Your task to perform on an android device: toggle wifi Image 0: 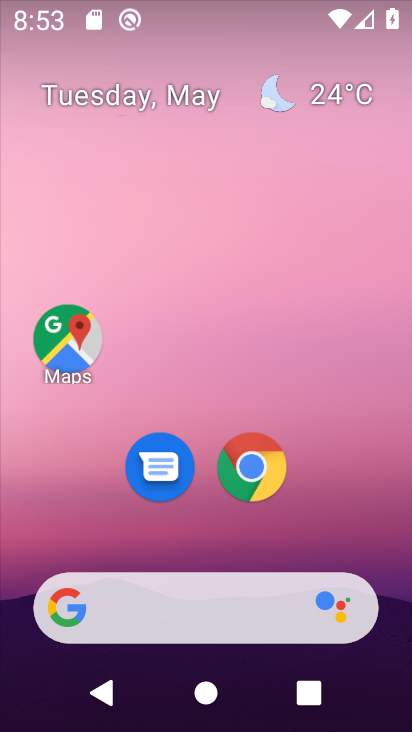
Step 0: drag from (392, 700) to (343, 223)
Your task to perform on an android device: toggle wifi Image 1: 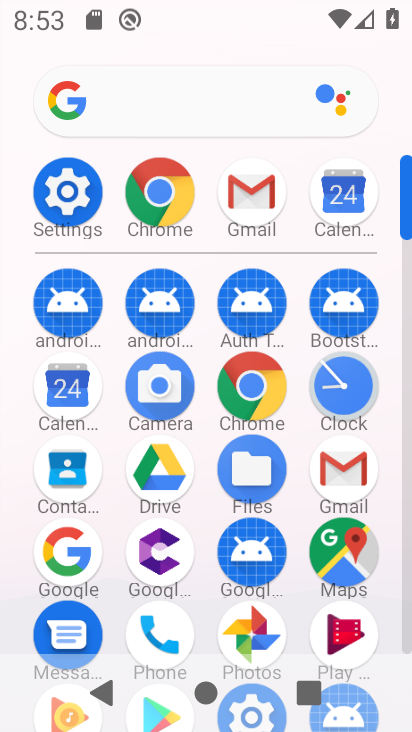
Step 1: click (71, 200)
Your task to perform on an android device: toggle wifi Image 2: 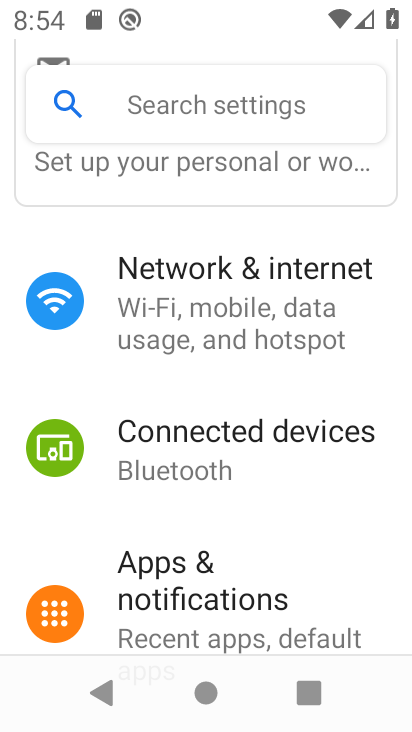
Step 2: click (192, 289)
Your task to perform on an android device: toggle wifi Image 3: 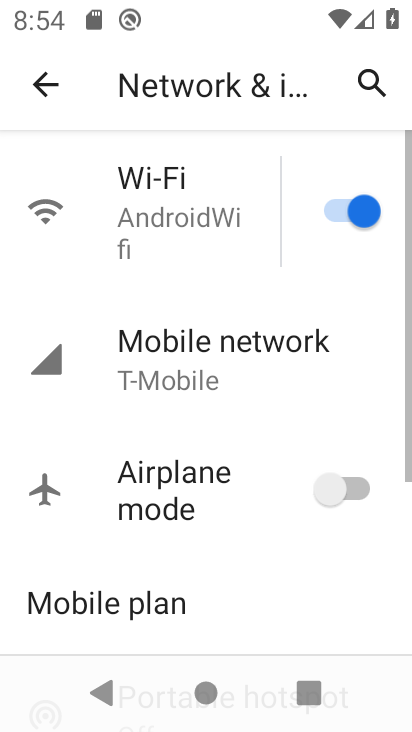
Step 3: click (342, 204)
Your task to perform on an android device: toggle wifi Image 4: 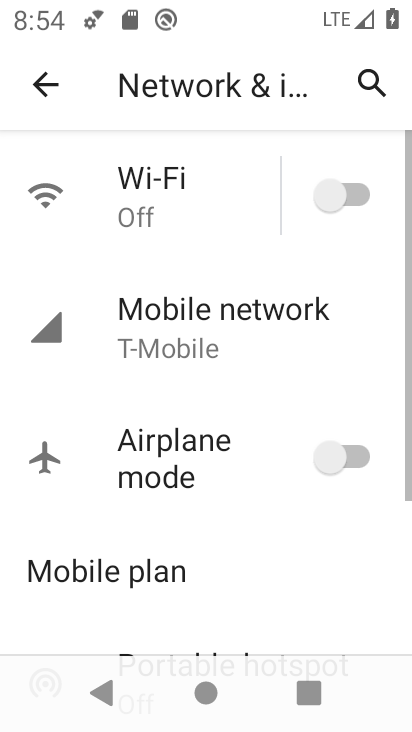
Step 4: task complete